Your task to perform on an android device: Open Youtube and go to the subscriptions tab Image 0: 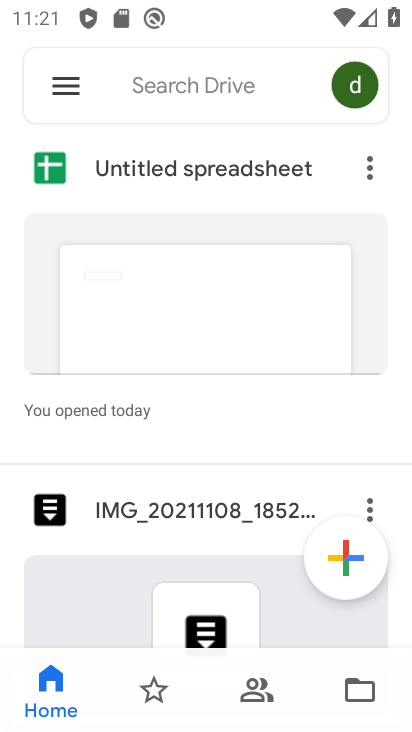
Step 0: press home button
Your task to perform on an android device: Open Youtube and go to the subscriptions tab Image 1: 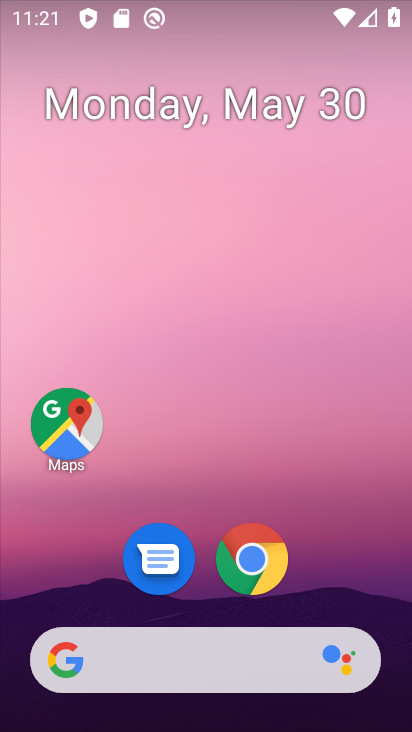
Step 1: drag from (199, 611) to (258, 144)
Your task to perform on an android device: Open Youtube and go to the subscriptions tab Image 2: 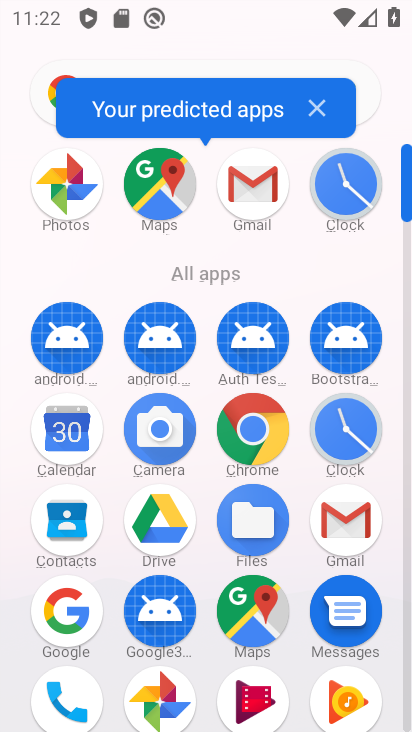
Step 2: drag from (209, 680) to (267, 164)
Your task to perform on an android device: Open Youtube and go to the subscriptions tab Image 3: 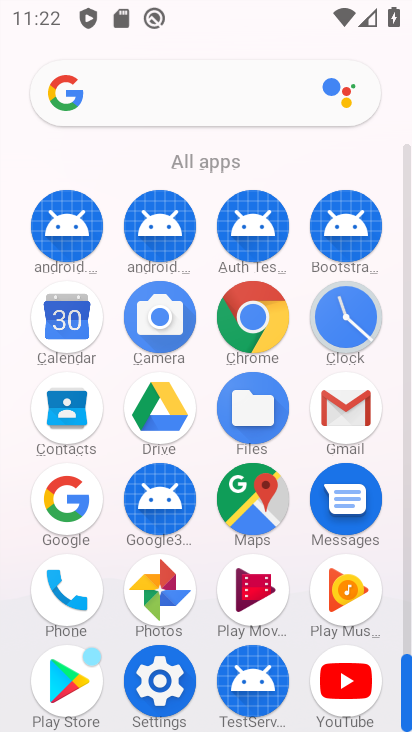
Step 3: click (335, 676)
Your task to perform on an android device: Open Youtube and go to the subscriptions tab Image 4: 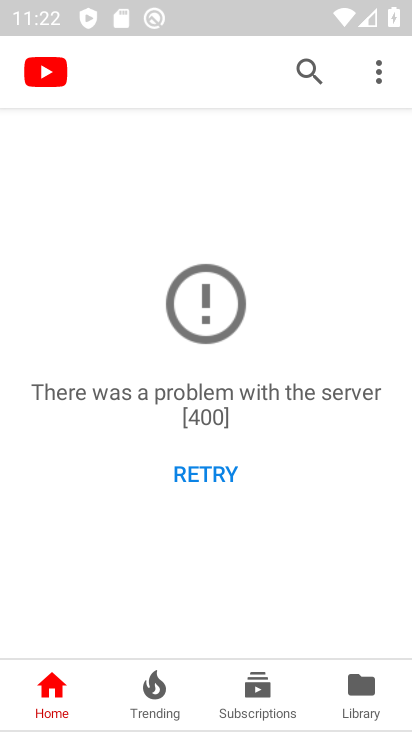
Step 4: click (257, 696)
Your task to perform on an android device: Open Youtube and go to the subscriptions tab Image 5: 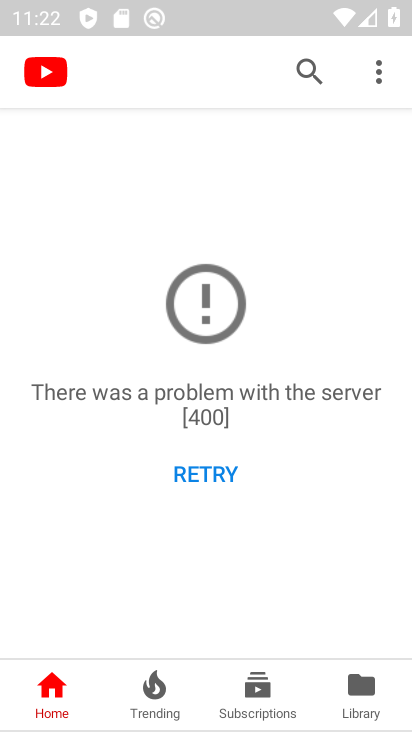
Step 5: click (258, 694)
Your task to perform on an android device: Open Youtube and go to the subscriptions tab Image 6: 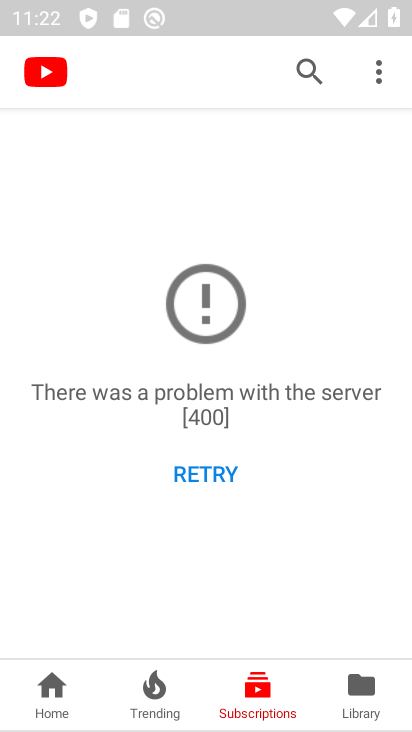
Step 6: task complete